Your task to perform on an android device: change the upload size in google photos Image 0: 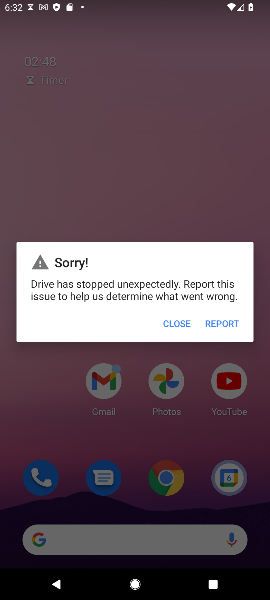
Step 0: press home button
Your task to perform on an android device: change the upload size in google photos Image 1: 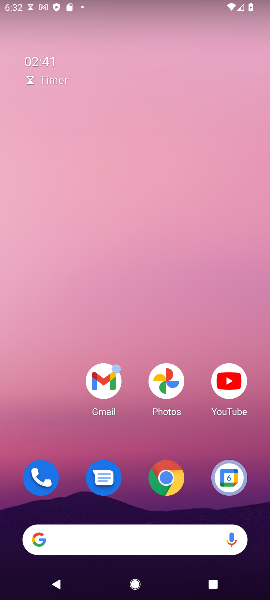
Step 1: drag from (124, 487) to (137, 84)
Your task to perform on an android device: change the upload size in google photos Image 2: 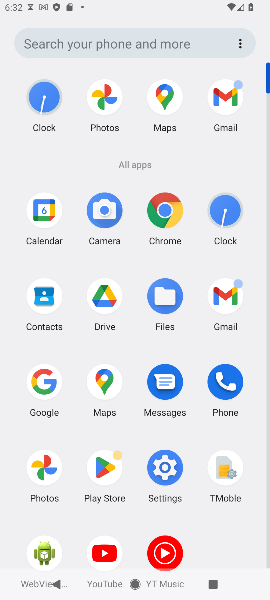
Step 2: click (48, 473)
Your task to perform on an android device: change the upload size in google photos Image 3: 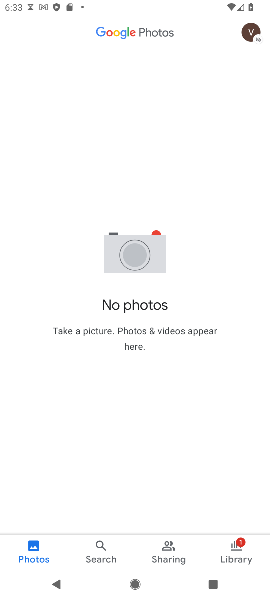
Step 3: click (241, 38)
Your task to perform on an android device: change the upload size in google photos Image 4: 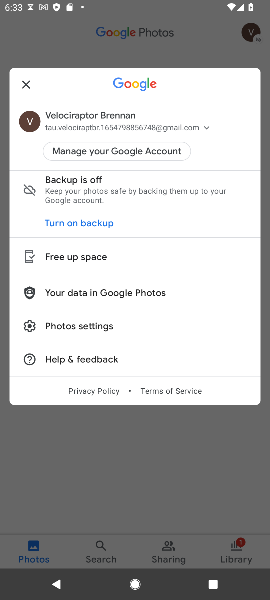
Step 4: click (79, 329)
Your task to perform on an android device: change the upload size in google photos Image 5: 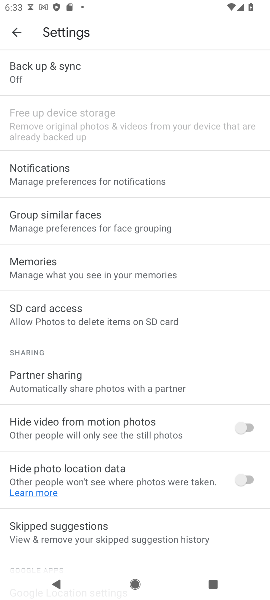
Step 5: click (78, 81)
Your task to perform on an android device: change the upload size in google photos Image 6: 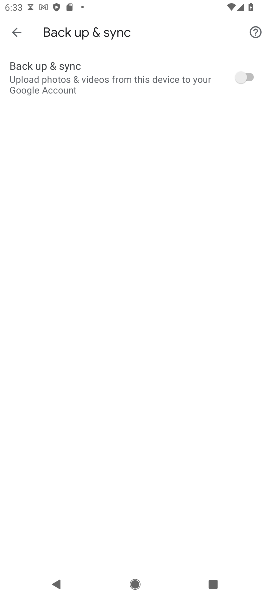
Step 6: click (88, 86)
Your task to perform on an android device: change the upload size in google photos Image 7: 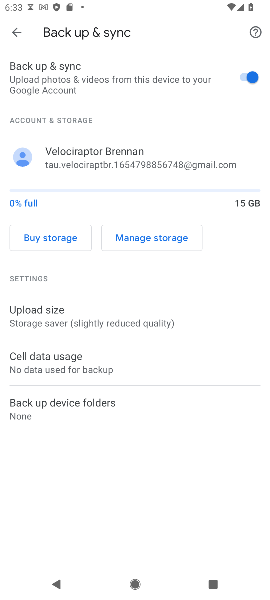
Step 7: click (60, 313)
Your task to perform on an android device: change the upload size in google photos Image 8: 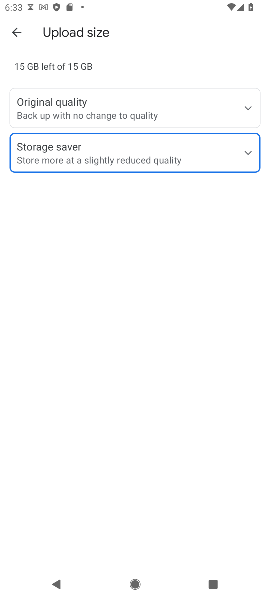
Step 8: task complete